Your task to perform on an android device: find snoozed emails in the gmail app Image 0: 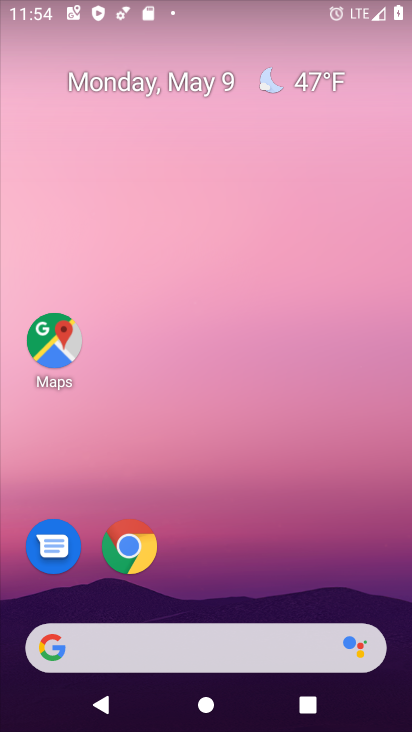
Step 0: drag from (348, 575) to (368, 13)
Your task to perform on an android device: find snoozed emails in the gmail app Image 1: 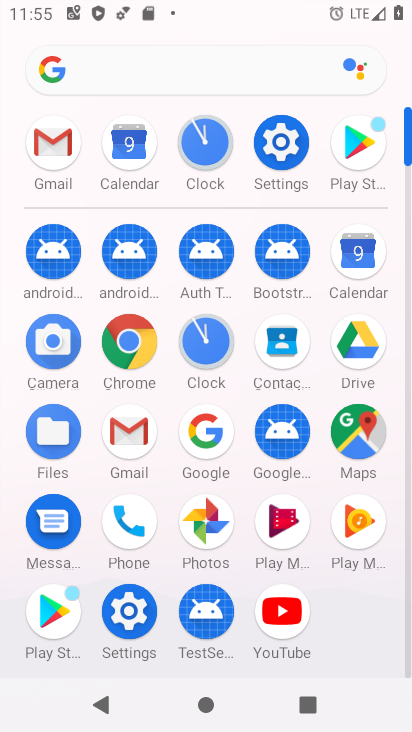
Step 1: click (47, 161)
Your task to perform on an android device: find snoozed emails in the gmail app Image 2: 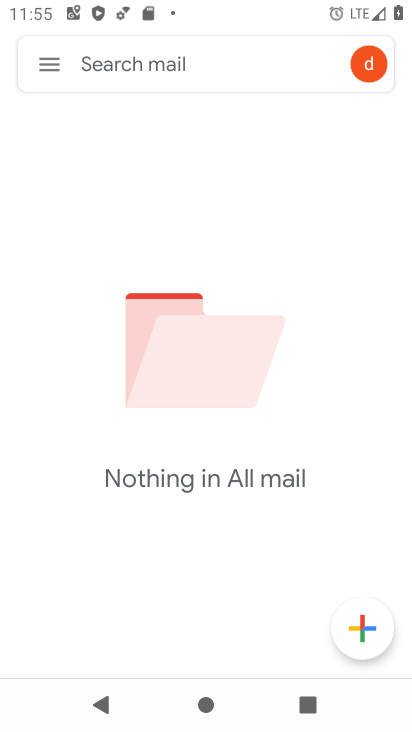
Step 2: click (47, 63)
Your task to perform on an android device: find snoozed emails in the gmail app Image 3: 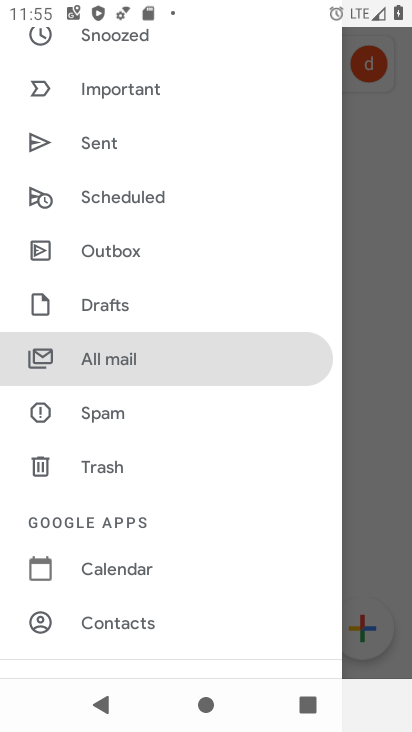
Step 3: click (98, 38)
Your task to perform on an android device: find snoozed emails in the gmail app Image 4: 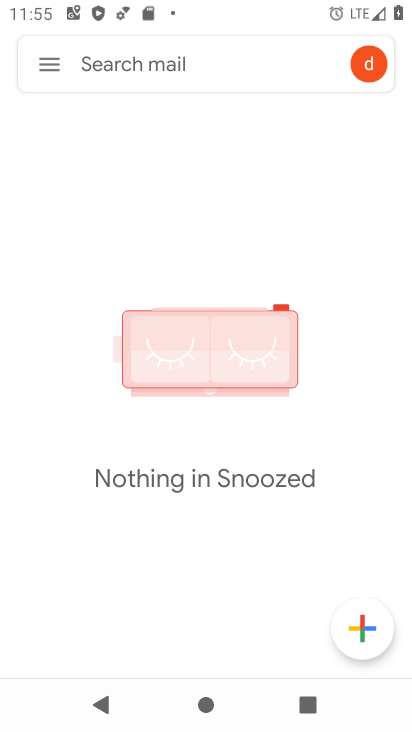
Step 4: task complete